Your task to perform on an android device: change the upload size in google photos Image 0: 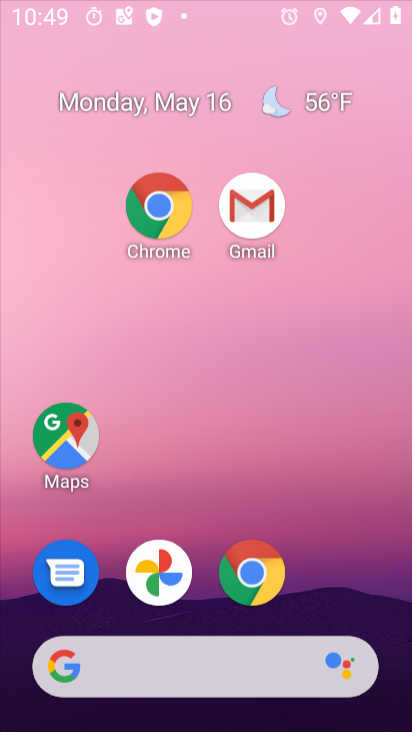
Step 0: click (230, 117)
Your task to perform on an android device: change the upload size in google photos Image 1: 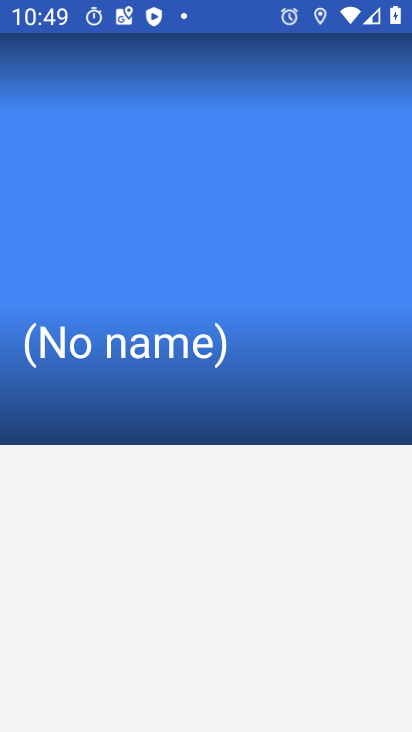
Step 1: drag from (347, 615) to (110, 151)
Your task to perform on an android device: change the upload size in google photos Image 2: 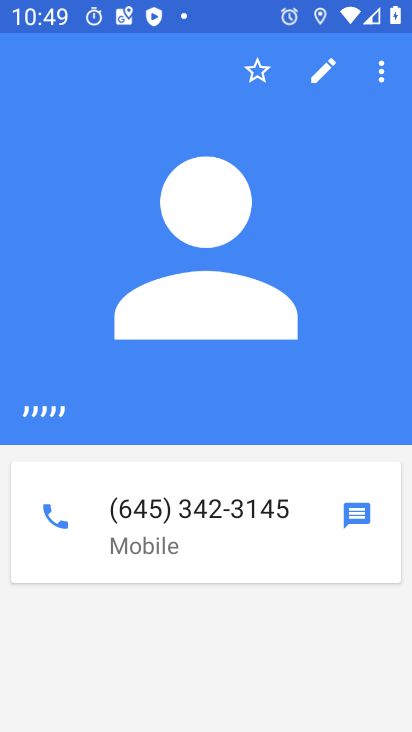
Step 2: press back button
Your task to perform on an android device: change the upload size in google photos Image 3: 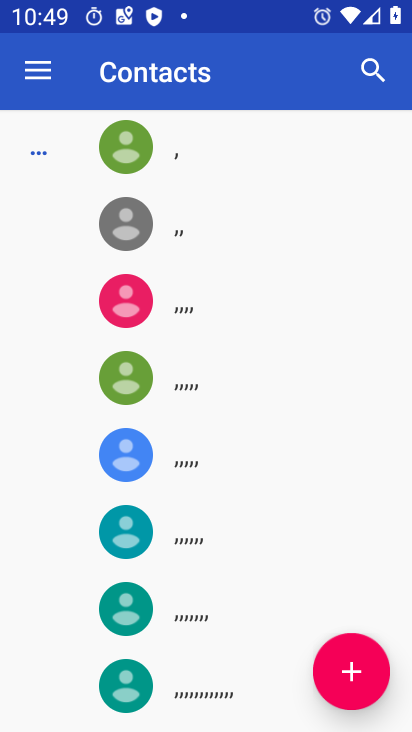
Step 3: press home button
Your task to perform on an android device: change the upload size in google photos Image 4: 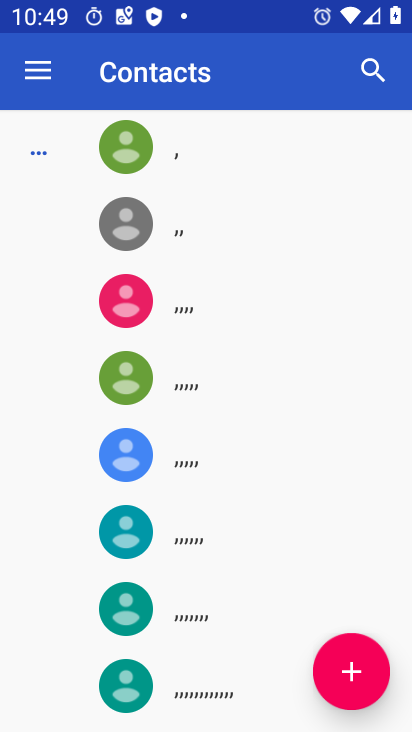
Step 4: press home button
Your task to perform on an android device: change the upload size in google photos Image 5: 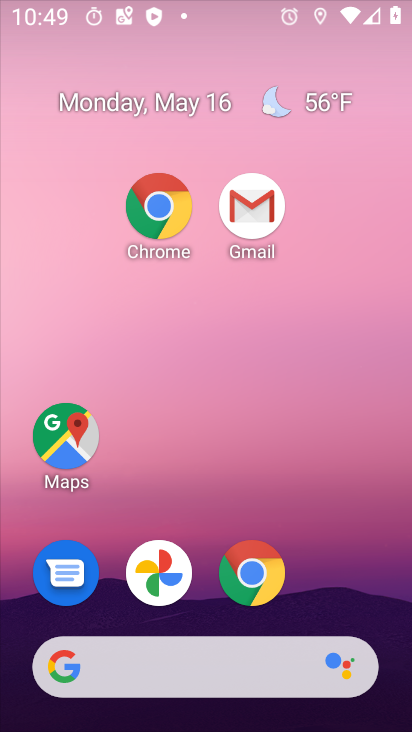
Step 5: press home button
Your task to perform on an android device: change the upload size in google photos Image 6: 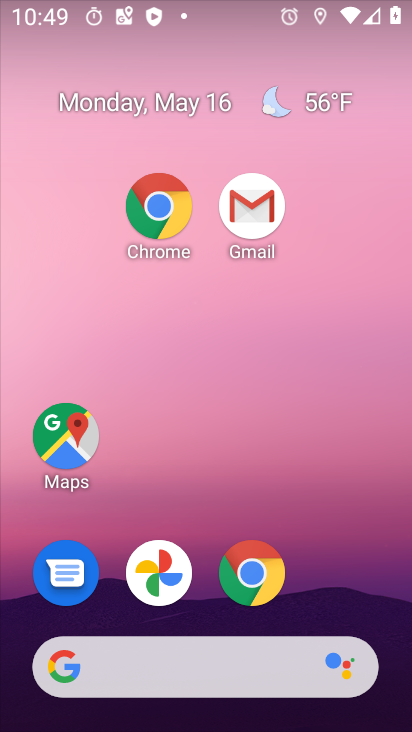
Step 6: drag from (378, 686) to (178, 74)
Your task to perform on an android device: change the upload size in google photos Image 7: 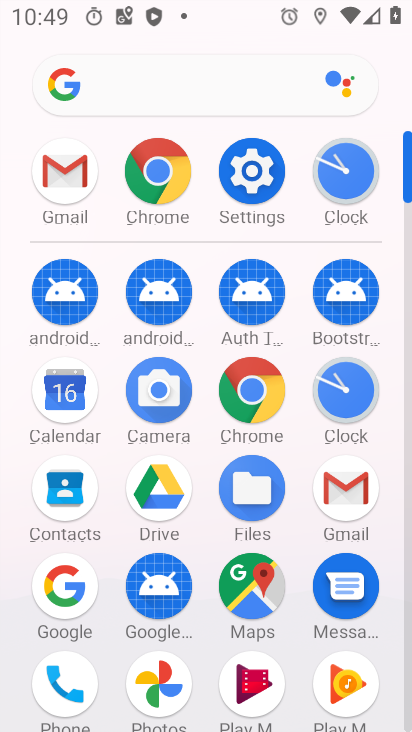
Step 7: click (162, 683)
Your task to perform on an android device: change the upload size in google photos Image 8: 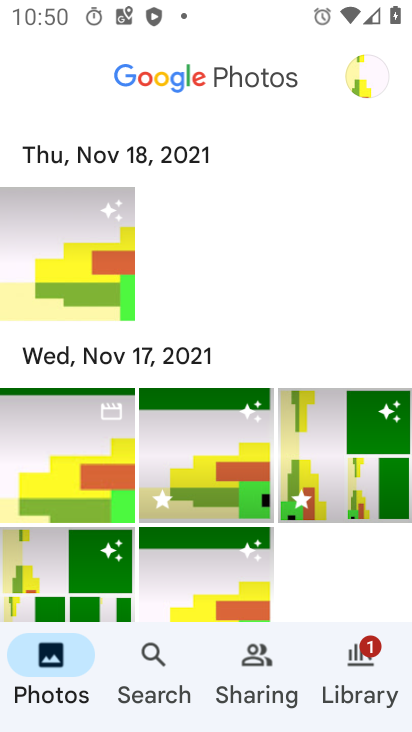
Step 8: task complete